Your task to perform on an android device: turn off data saver in the chrome app Image 0: 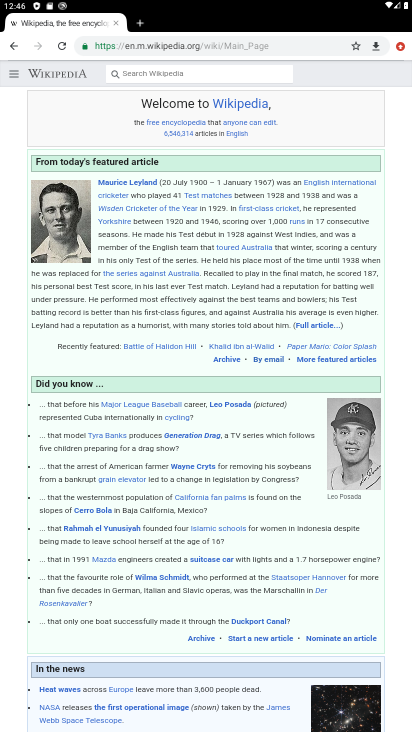
Step 0: press home button
Your task to perform on an android device: turn off data saver in the chrome app Image 1: 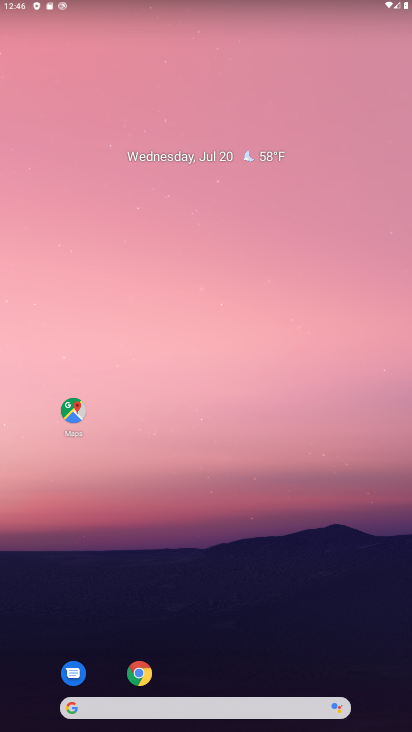
Step 1: click (136, 672)
Your task to perform on an android device: turn off data saver in the chrome app Image 2: 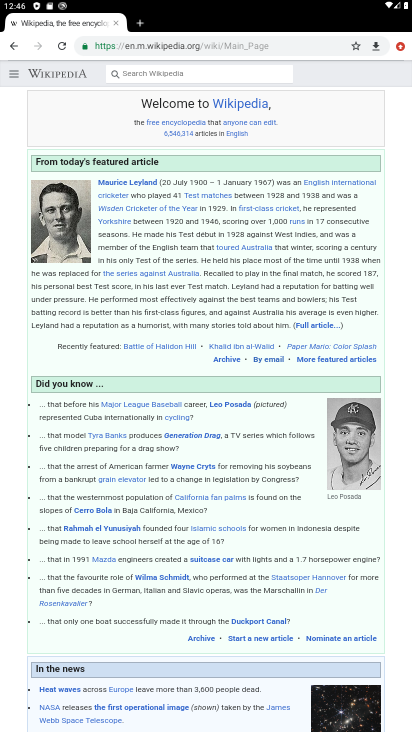
Step 2: click (403, 44)
Your task to perform on an android device: turn off data saver in the chrome app Image 3: 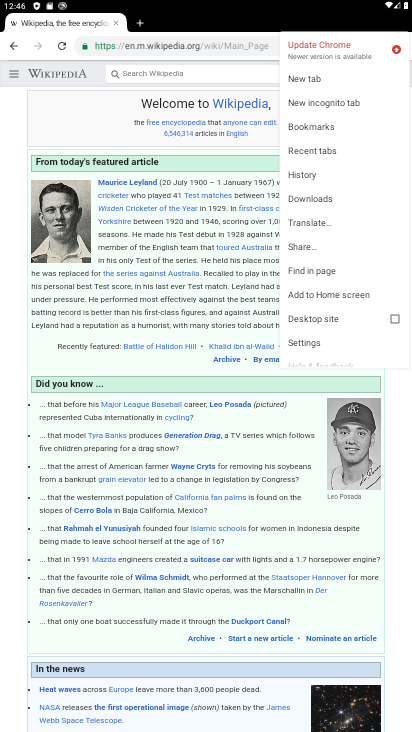
Step 3: click (316, 345)
Your task to perform on an android device: turn off data saver in the chrome app Image 4: 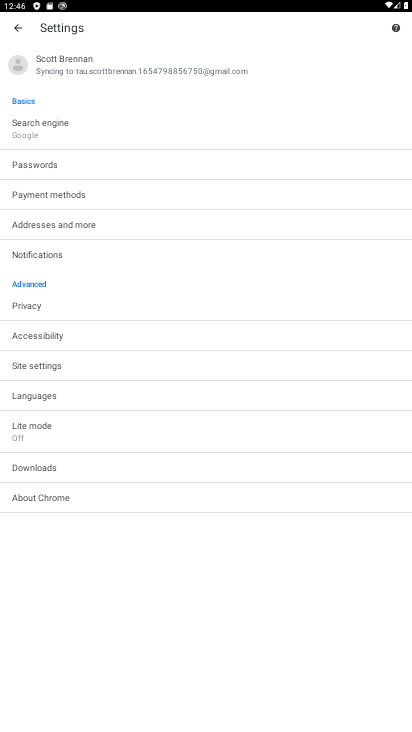
Step 4: click (75, 424)
Your task to perform on an android device: turn off data saver in the chrome app Image 5: 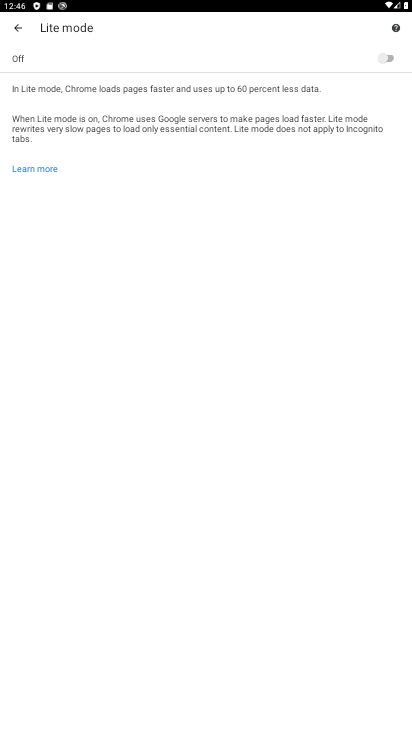
Step 5: task complete